Your task to perform on an android device: add a contact Image 0: 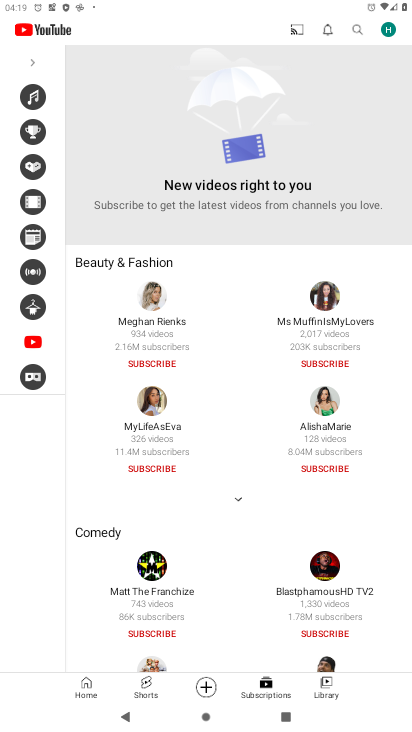
Step 0: press home button
Your task to perform on an android device: add a contact Image 1: 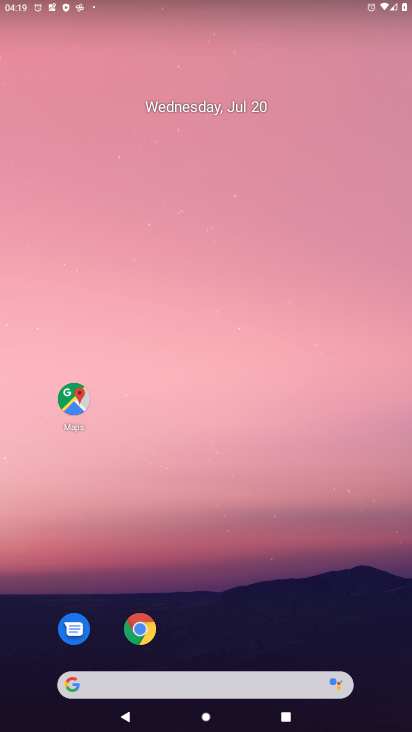
Step 1: drag from (381, 657) to (325, 45)
Your task to perform on an android device: add a contact Image 2: 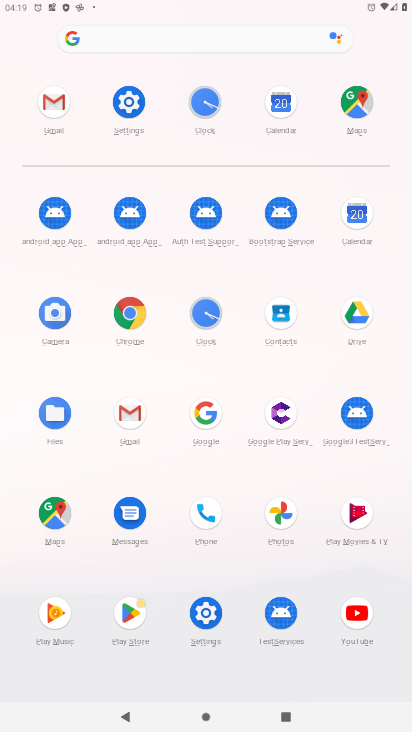
Step 2: click (277, 313)
Your task to perform on an android device: add a contact Image 3: 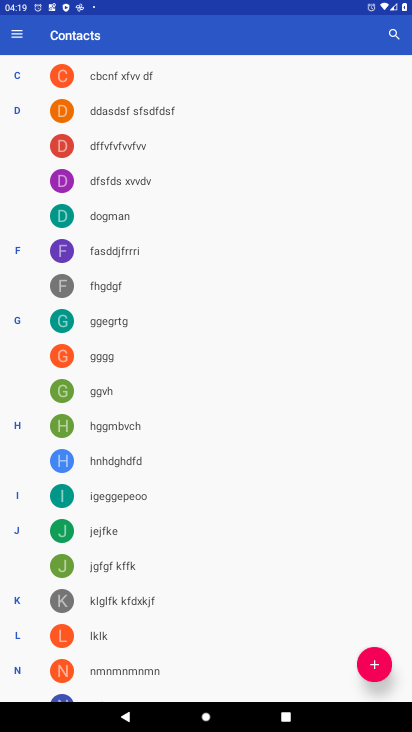
Step 3: click (373, 666)
Your task to perform on an android device: add a contact Image 4: 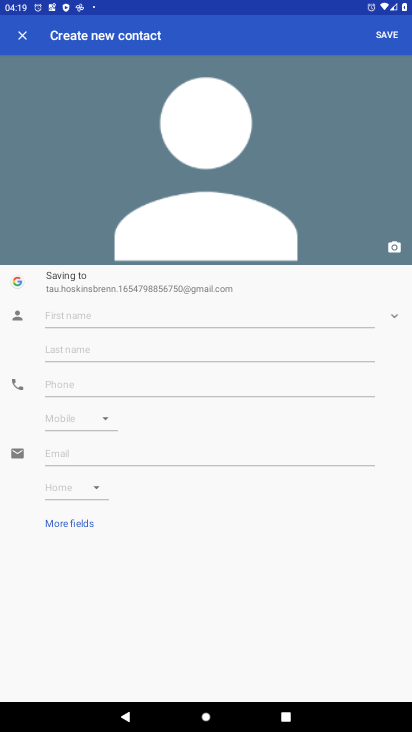
Step 4: click (90, 319)
Your task to perform on an android device: add a contact Image 5: 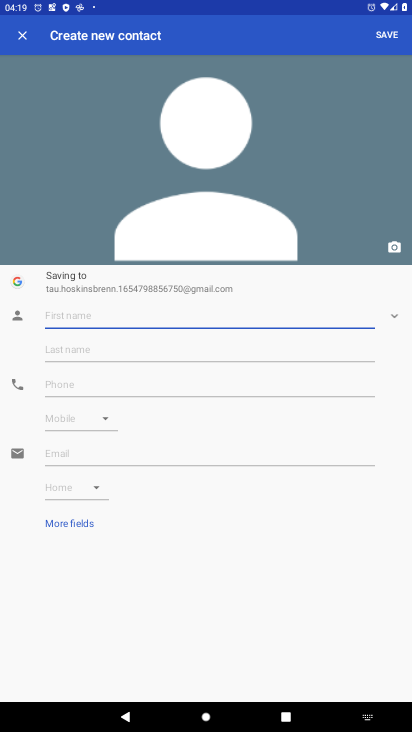
Step 5: type "iyoiyujghjhj"
Your task to perform on an android device: add a contact Image 6: 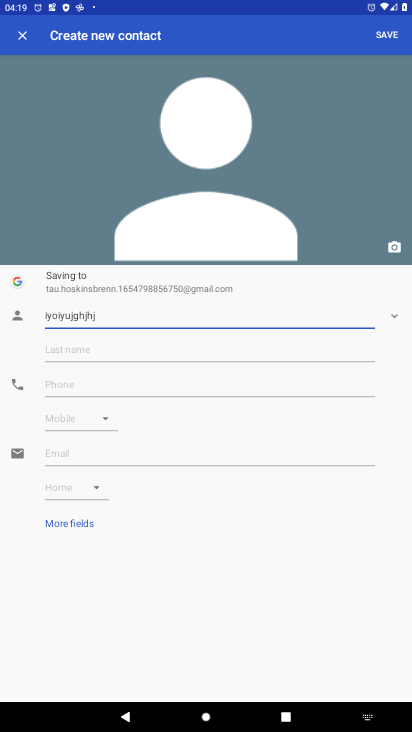
Step 6: click (82, 396)
Your task to perform on an android device: add a contact Image 7: 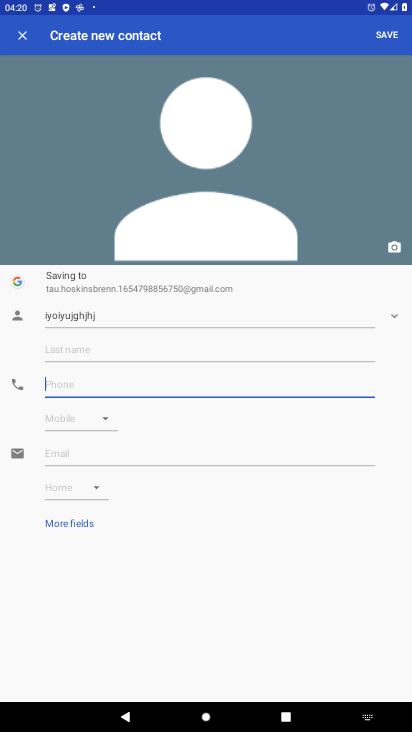
Step 7: type "098765435"
Your task to perform on an android device: add a contact Image 8: 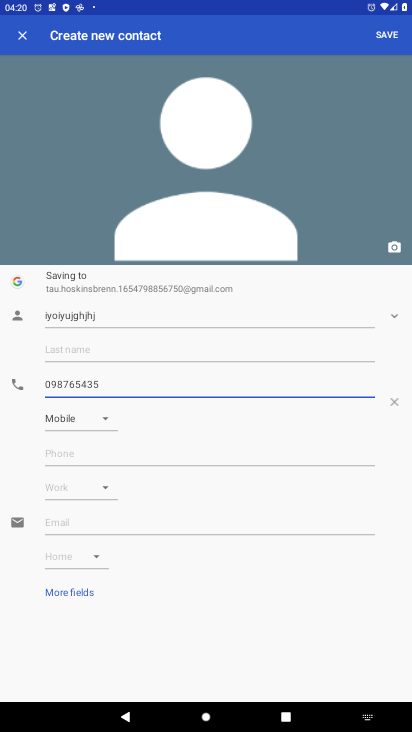
Step 8: click (383, 31)
Your task to perform on an android device: add a contact Image 9: 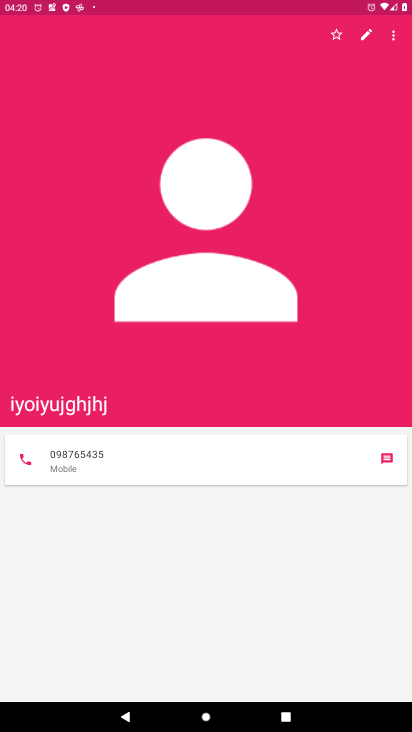
Step 9: task complete